Your task to perform on an android device: turn on the 24-hour format for clock Image 0: 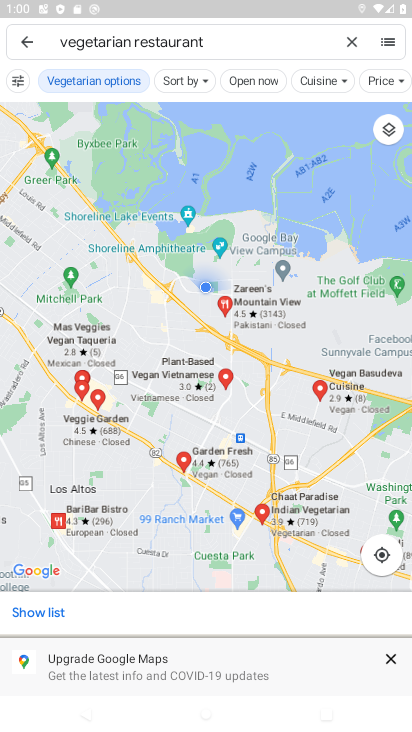
Step 0: task complete